Your task to perform on an android device: Go to settings Image 0: 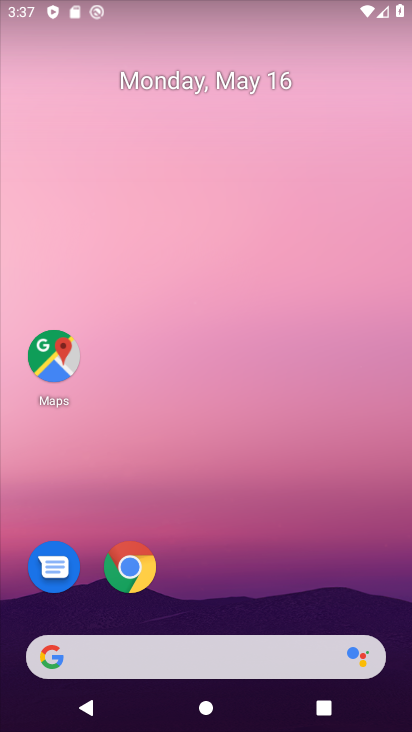
Step 0: drag from (293, 514) to (305, 0)
Your task to perform on an android device: Go to settings Image 1: 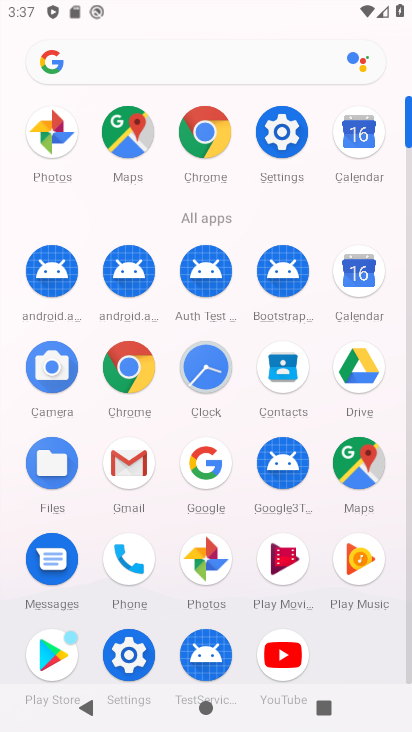
Step 1: click (286, 150)
Your task to perform on an android device: Go to settings Image 2: 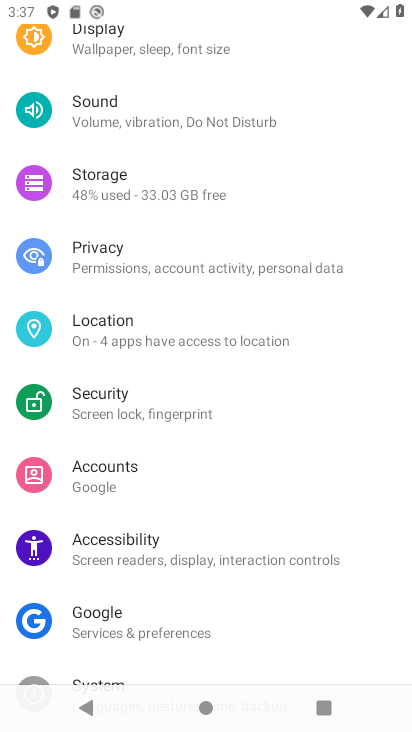
Step 2: task complete